Your task to perform on an android device: Open the calendar and show me this week's events? Image 0: 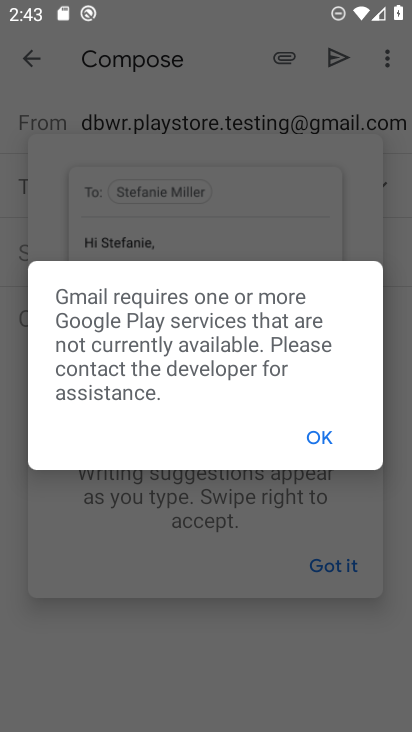
Step 0: press home button
Your task to perform on an android device: Open the calendar and show me this week's events? Image 1: 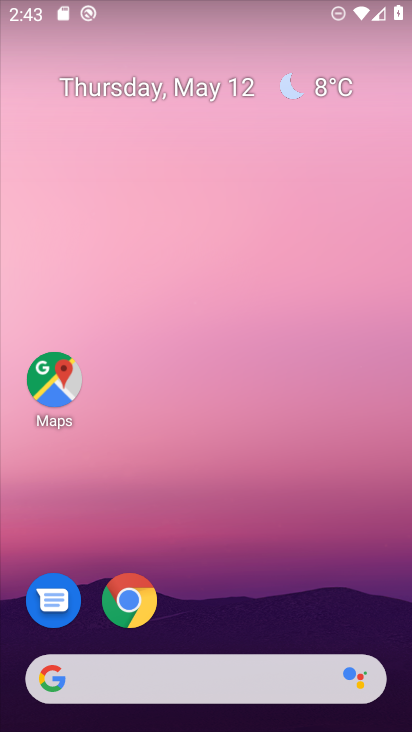
Step 1: drag from (197, 724) to (200, 133)
Your task to perform on an android device: Open the calendar and show me this week's events? Image 2: 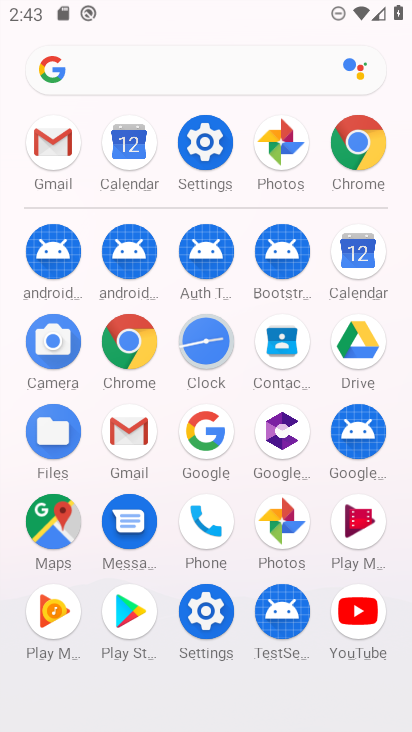
Step 2: click (359, 262)
Your task to perform on an android device: Open the calendar and show me this week's events? Image 3: 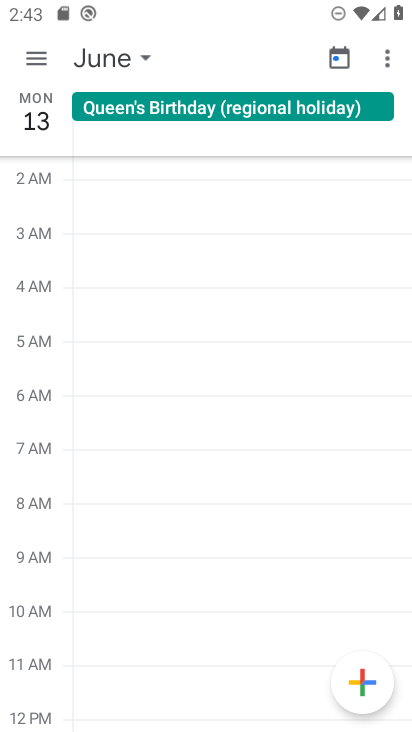
Step 3: click (88, 58)
Your task to perform on an android device: Open the calendar and show me this week's events? Image 4: 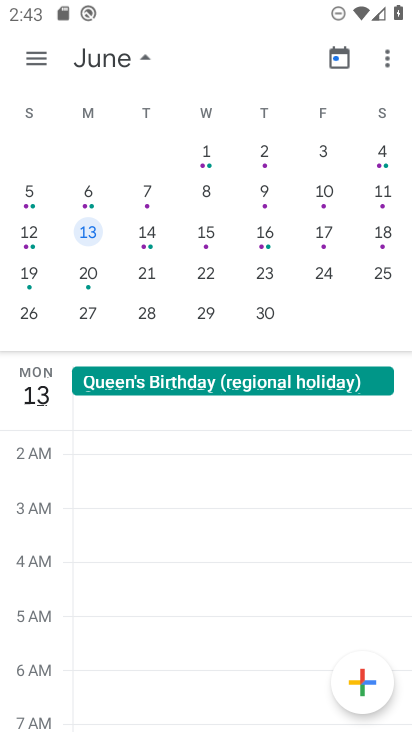
Step 4: drag from (24, 254) to (411, 222)
Your task to perform on an android device: Open the calendar and show me this week's events? Image 5: 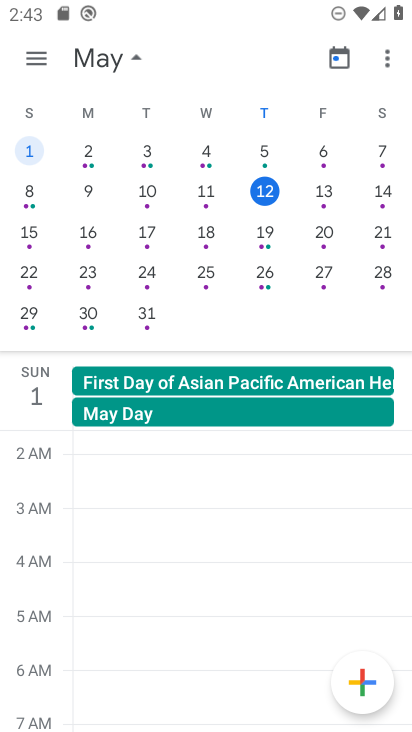
Step 5: click (35, 54)
Your task to perform on an android device: Open the calendar and show me this week's events? Image 6: 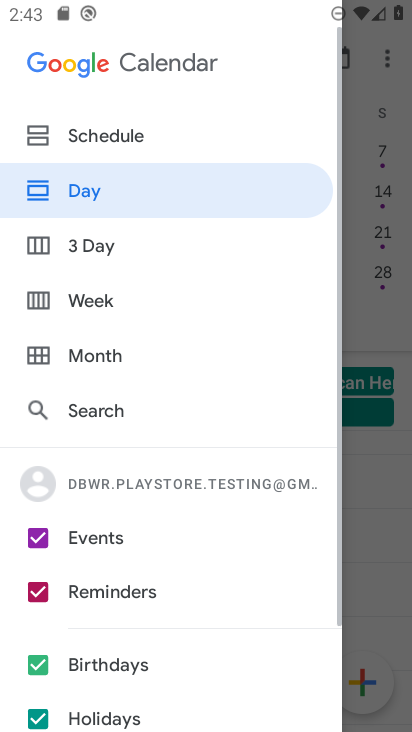
Step 6: click (83, 298)
Your task to perform on an android device: Open the calendar and show me this week's events? Image 7: 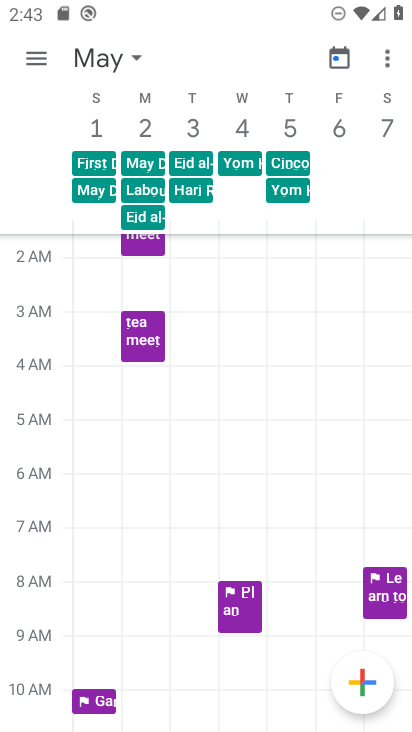
Step 7: task complete